Your task to perform on an android device: Search for pizza restaurants on Maps Image 0: 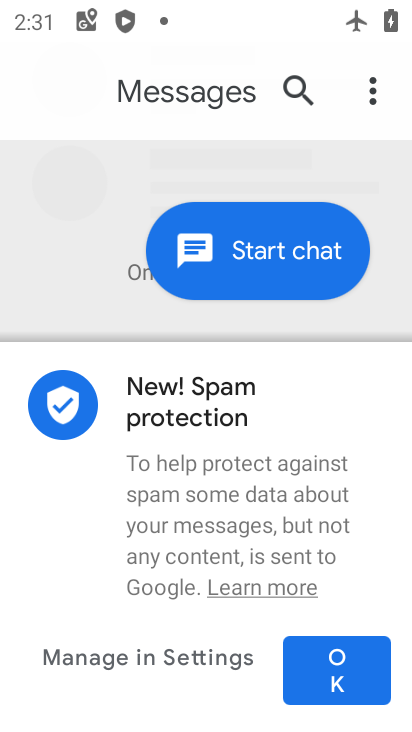
Step 0: press home button
Your task to perform on an android device: Search for pizza restaurants on Maps Image 1: 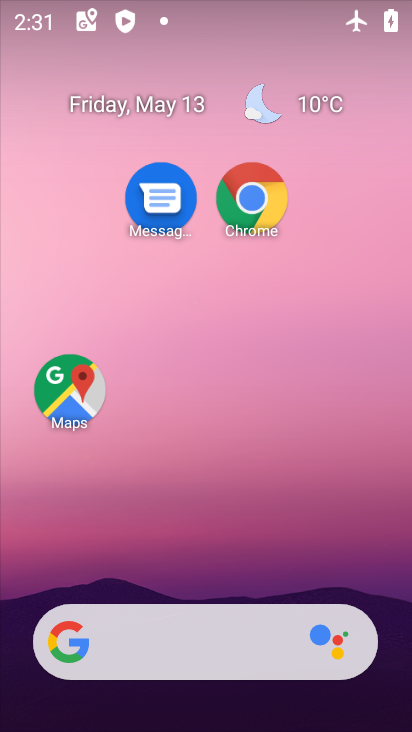
Step 1: drag from (230, 595) to (205, 3)
Your task to perform on an android device: Search for pizza restaurants on Maps Image 2: 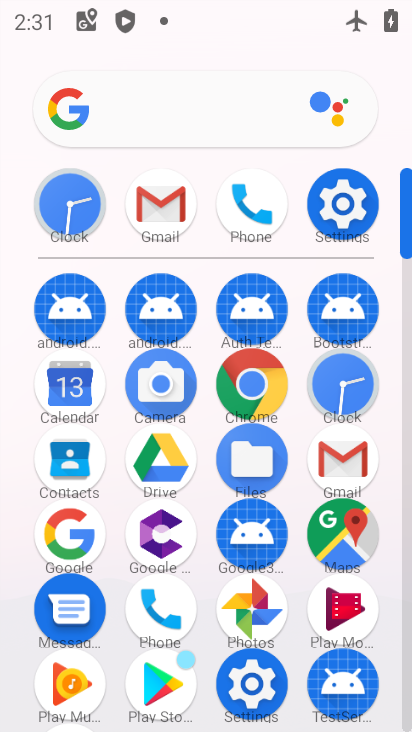
Step 2: click (336, 535)
Your task to perform on an android device: Search for pizza restaurants on Maps Image 3: 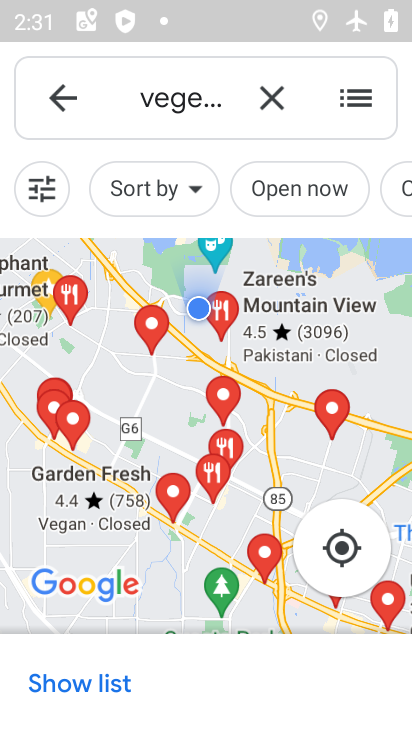
Step 3: click (285, 105)
Your task to perform on an android device: Search for pizza restaurants on Maps Image 4: 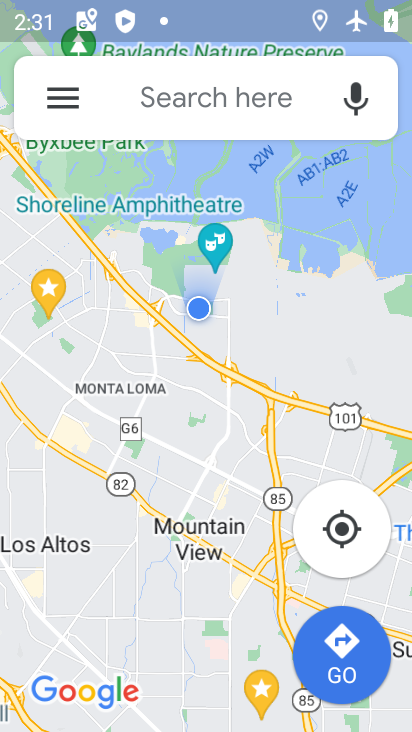
Step 4: click (285, 102)
Your task to perform on an android device: Search for pizza restaurants on Maps Image 5: 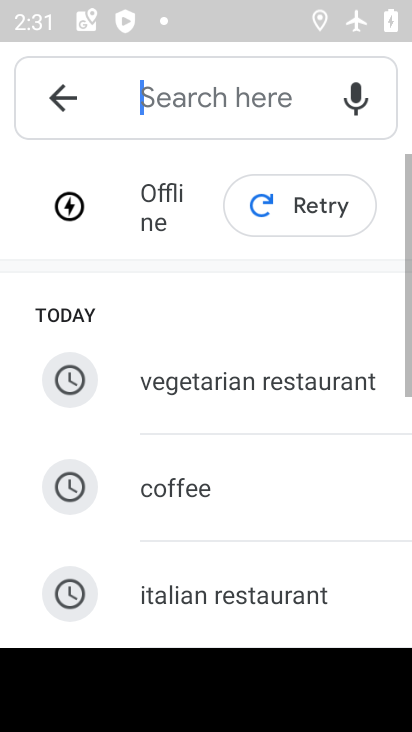
Step 5: drag from (245, 444) to (175, 68)
Your task to perform on an android device: Search for pizza restaurants on Maps Image 6: 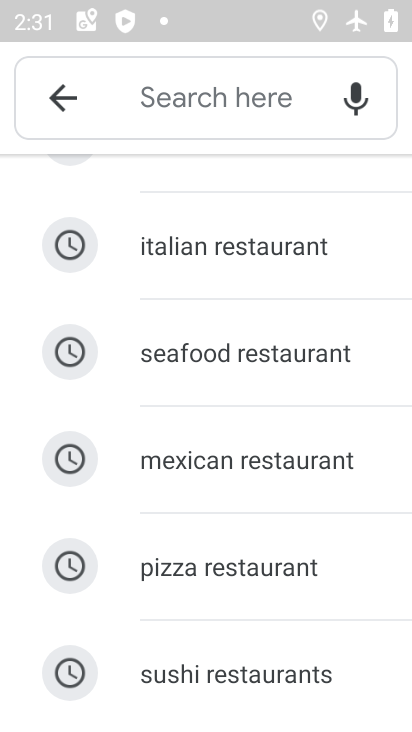
Step 6: click (176, 564)
Your task to perform on an android device: Search for pizza restaurants on Maps Image 7: 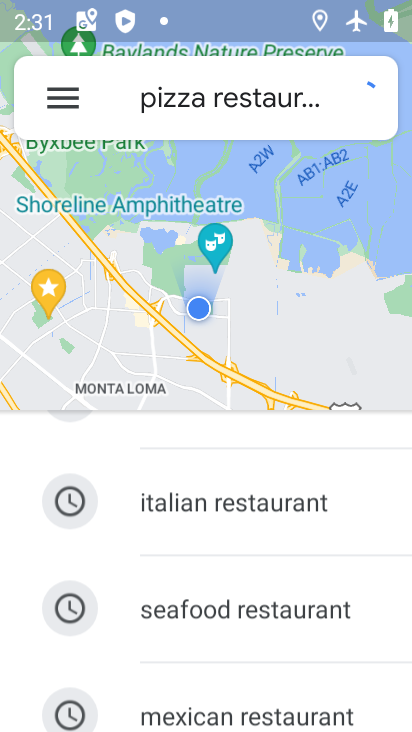
Step 7: task complete